Your task to perform on an android device: Go to Google Image 0: 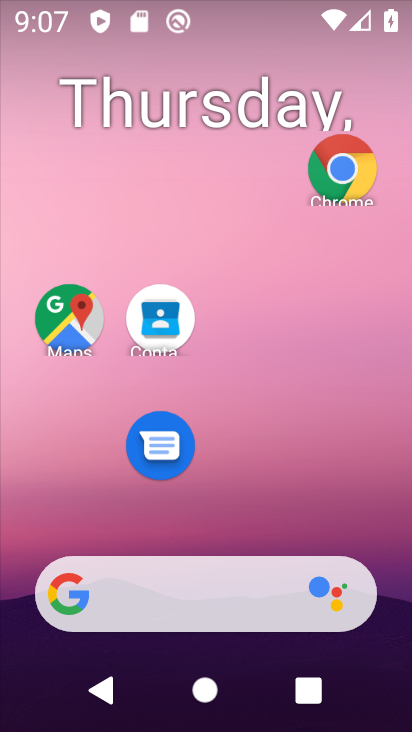
Step 0: drag from (271, 620) to (271, 150)
Your task to perform on an android device: Go to Google Image 1: 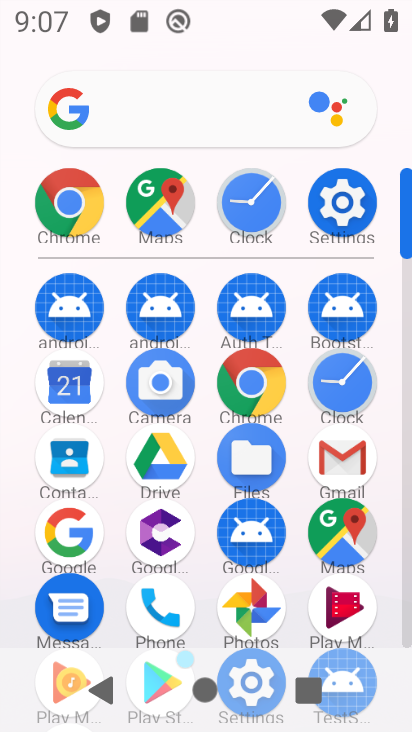
Step 1: click (81, 191)
Your task to perform on an android device: Go to Google Image 2: 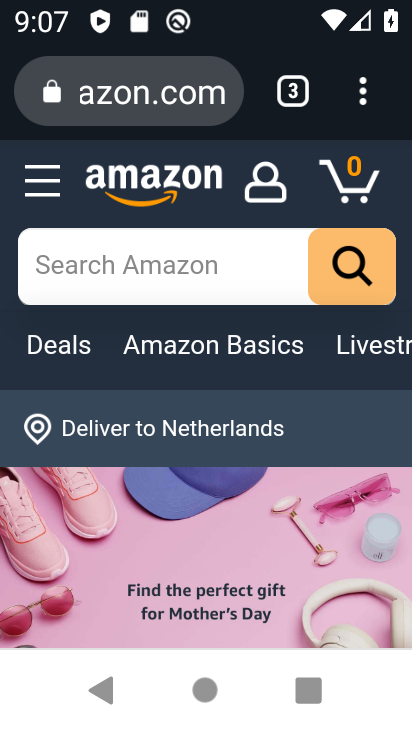
Step 2: click (146, 84)
Your task to perform on an android device: Go to Google Image 3: 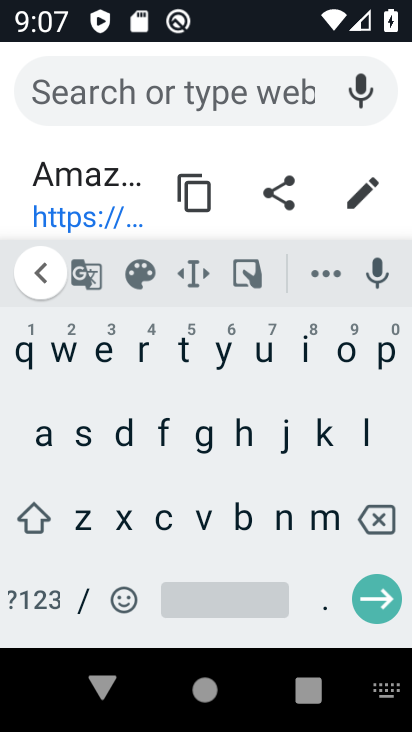
Step 3: click (204, 428)
Your task to perform on an android device: Go to Google Image 4: 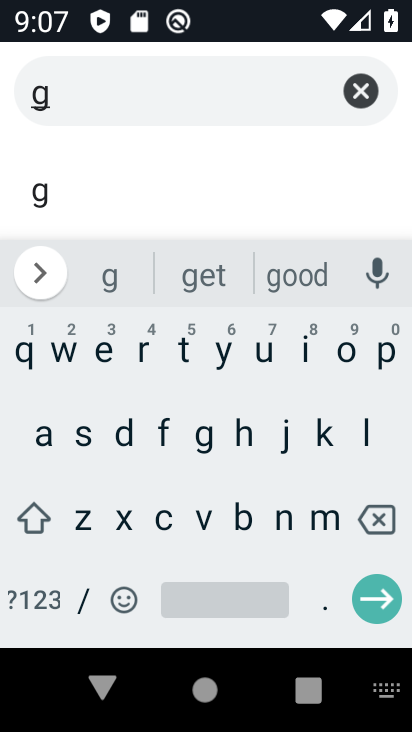
Step 4: click (337, 360)
Your task to perform on an android device: Go to Google Image 5: 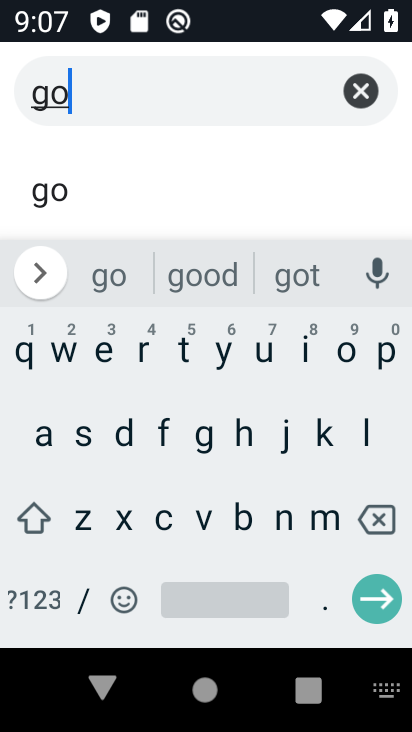
Step 5: click (337, 360)
Your task to perform on an android device: Go to Google Image 6: 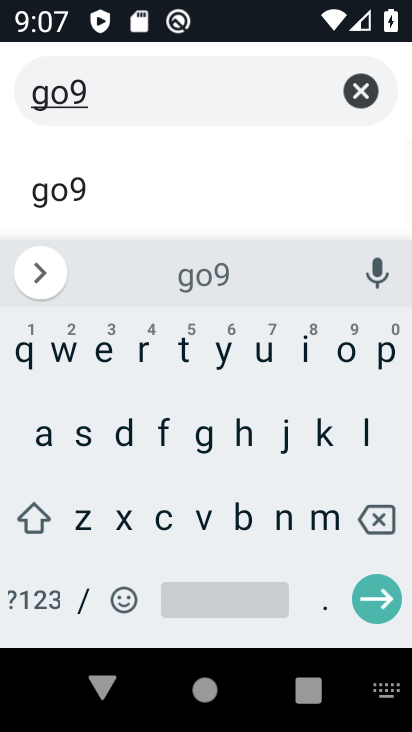
Step 6: click (374, 519)
Your task to perform on an android device: Go to Google Image 7: 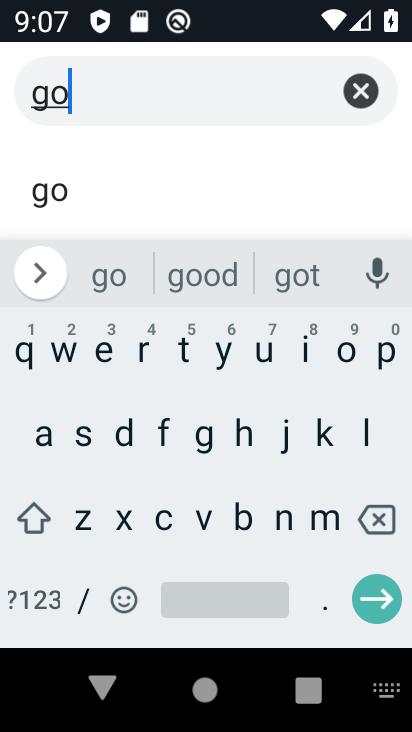
Step 7: click (335, 363)
Your task to perform on an android device: Go to Google Image 8: 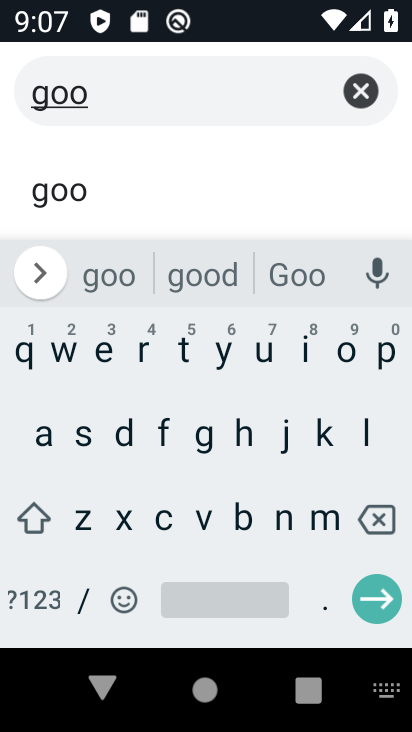
Step 8: click (218, 437)
Your task to perform on an android device: Go to Google Image 9: 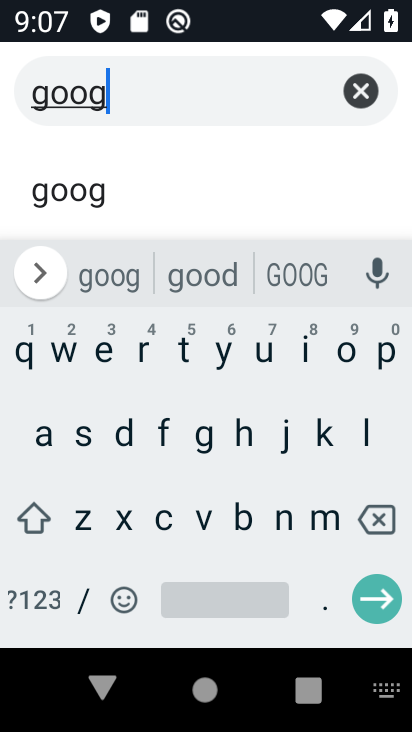
Step 9: click (363, 428)
Your task to perform on an android device: Go to Google Image 10: 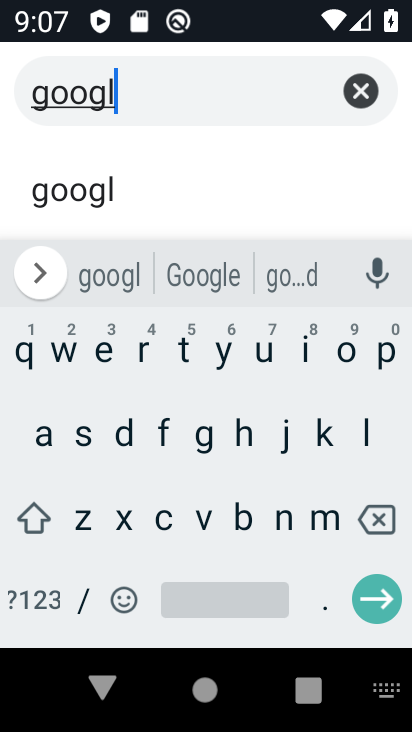
Step 10: click (99, 354)
Your task to perform on an android device: Go to Google Image 11: 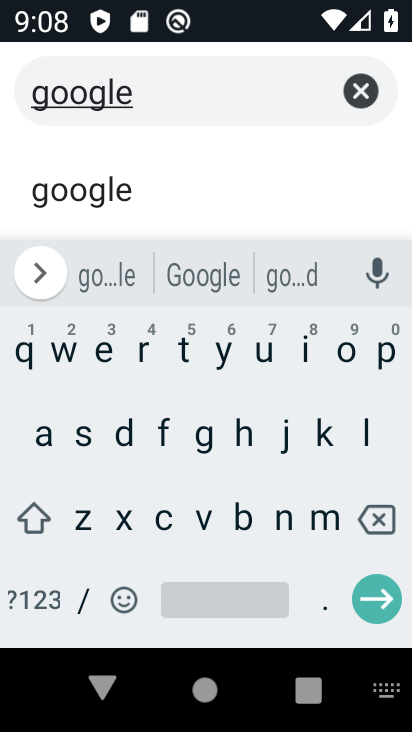
Step 11: click (386, 585)
Your task to perform on an android device: Go to Google Image 12: 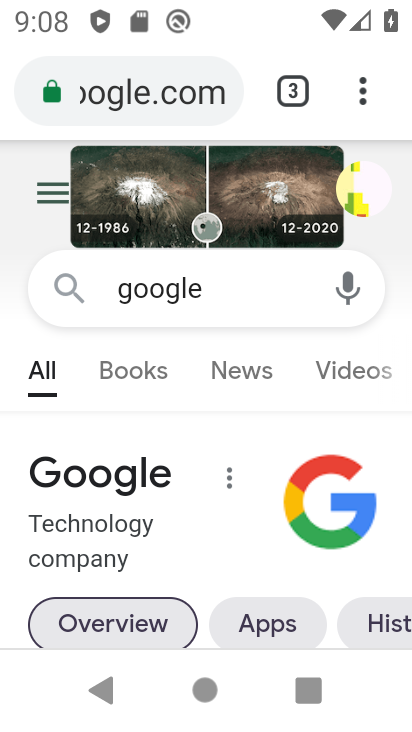
Step 12: drag from (165, 570) to (134, 356)
Your task to perform on an android device: Go to Google Image 13: 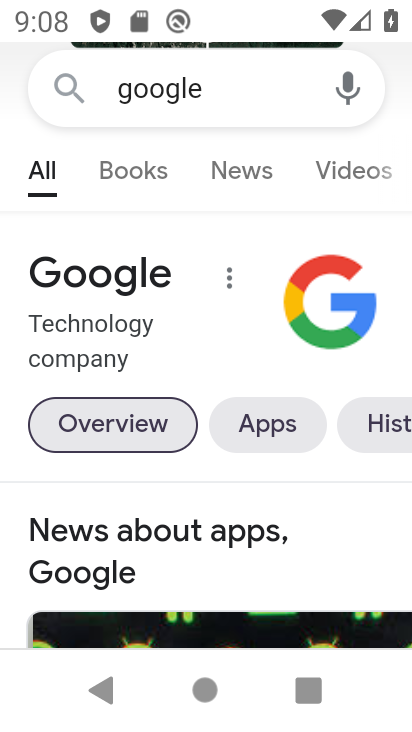
Step 13: drag from (182, 486) to (189, 181)
Your task to perform on an android device: Go to Google Image 14: 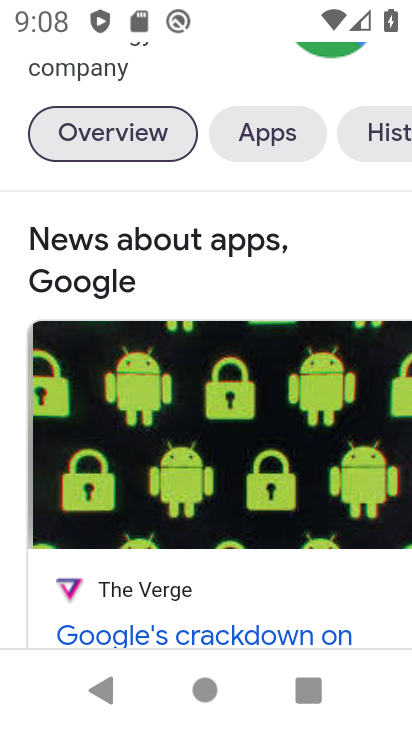
Step 14: drag from (210, 397) to (214, 178)
Your task to perform on an android device: Go to Google Image 15: 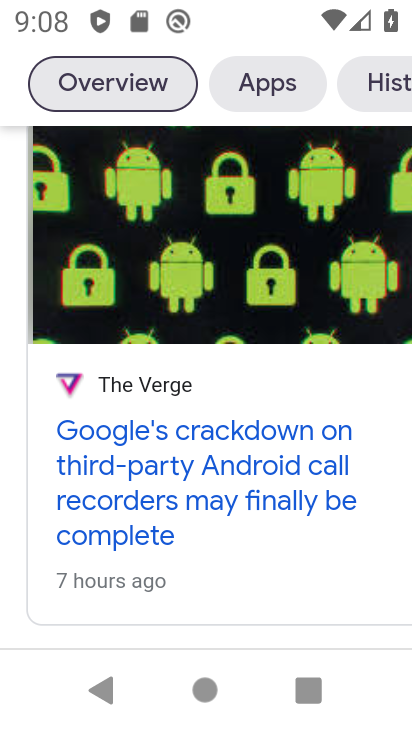
Step 15: drag from (222, 404) to (236, 125)
Your task to perform on an android device: Go to Google Image 16: 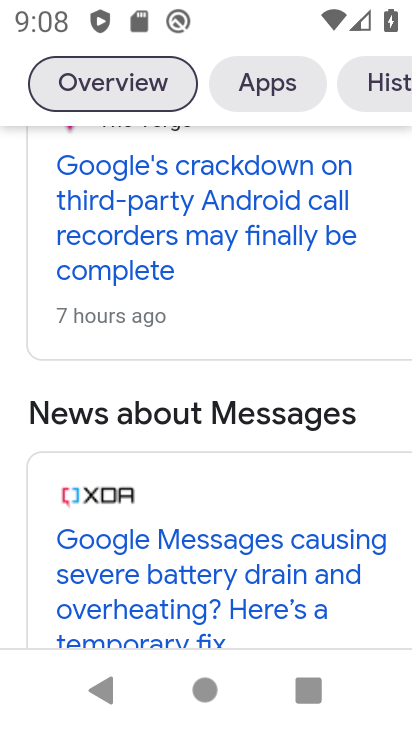
Step 16: drag from (183, 439) to (201, 124)
Your task to perform on an android device: Go to Google Image 17: 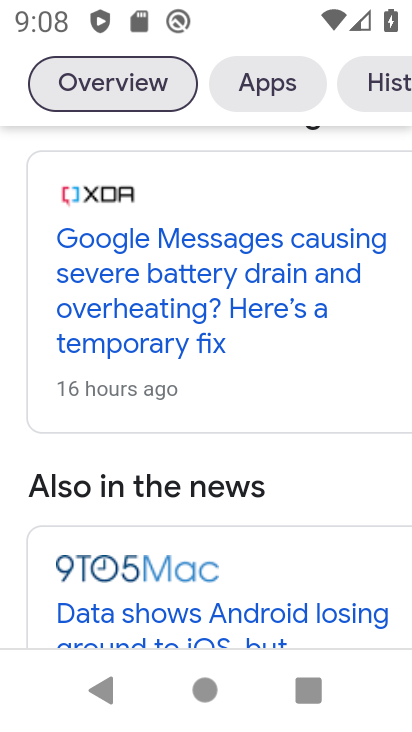
Step 17: drag from (173, 455) to (188, 198)
Your task to perform on an android device: Go to Google Image 18: 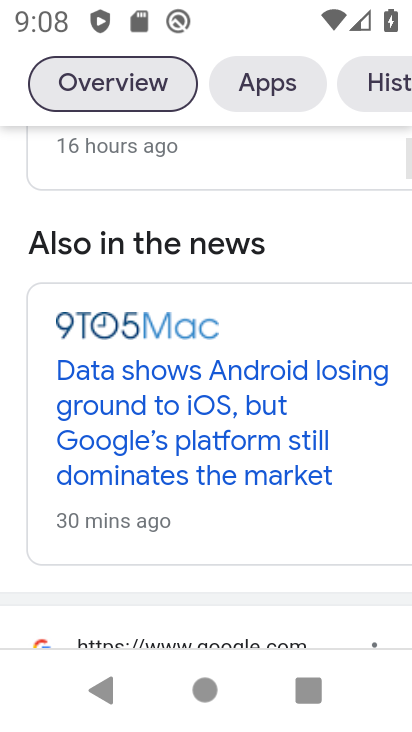
Step 18: drag from (149, 500) to (181, 213)
Your task to perform on an android device: Go to Google Image 19: 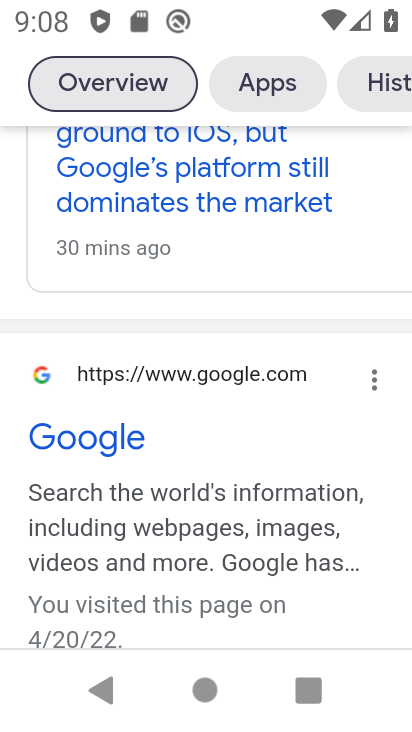
Step 19: click (87, 435)
Your task to perform on an android device: Go to Google Image 20: 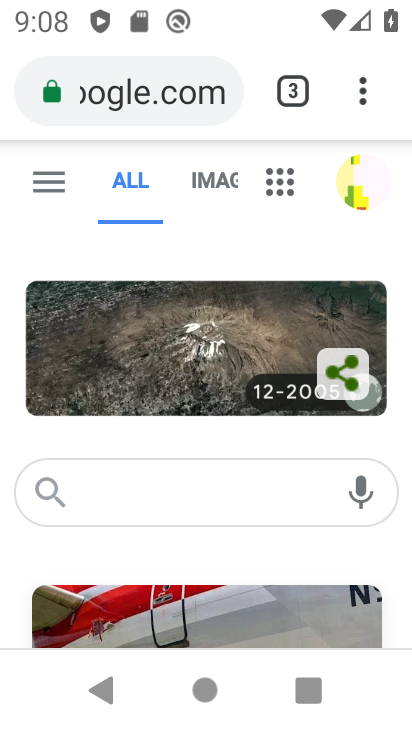
Step 20: task complete